Your task to perform on an android device: open app "Adobe Express: Graphic Design" (install if not already installed) Image 0: 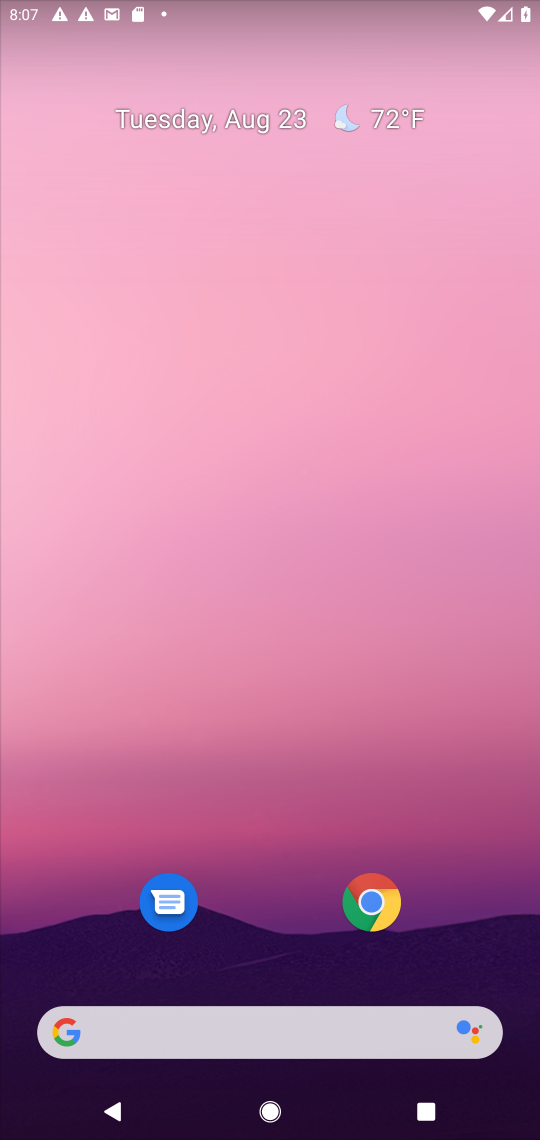
Step 0: click (251, 341)
Your task to perform on an android device: open app "Adobe Express: Graphic Design" (install if not already installed) Image 1: 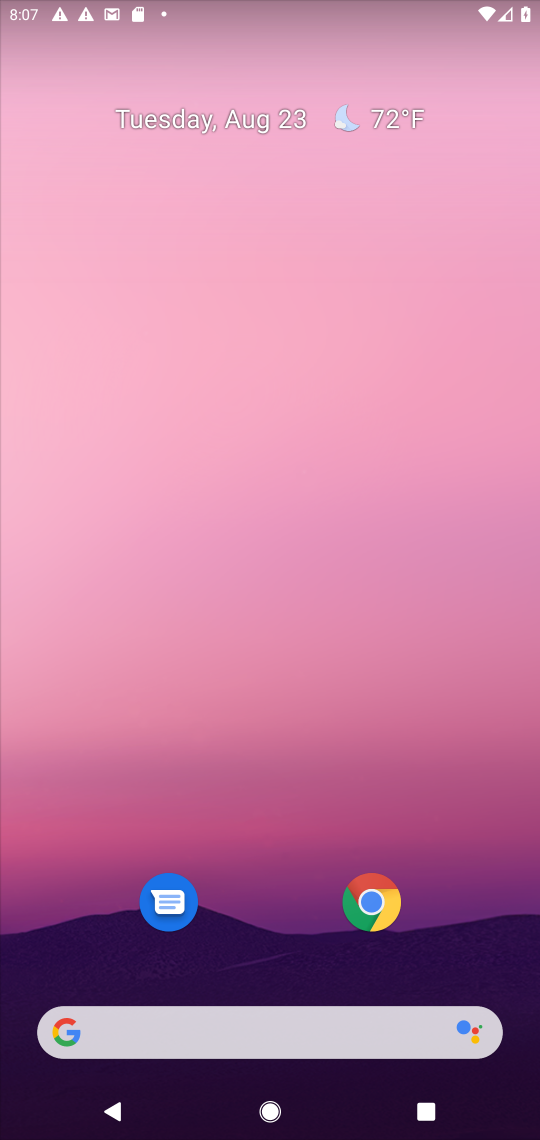
Step 1: drag from (267, 1035) to (255, 224)
Your task to perform on an android device: open app "Adobe Express: Graphic Design" (install if not already installed) Image 2: 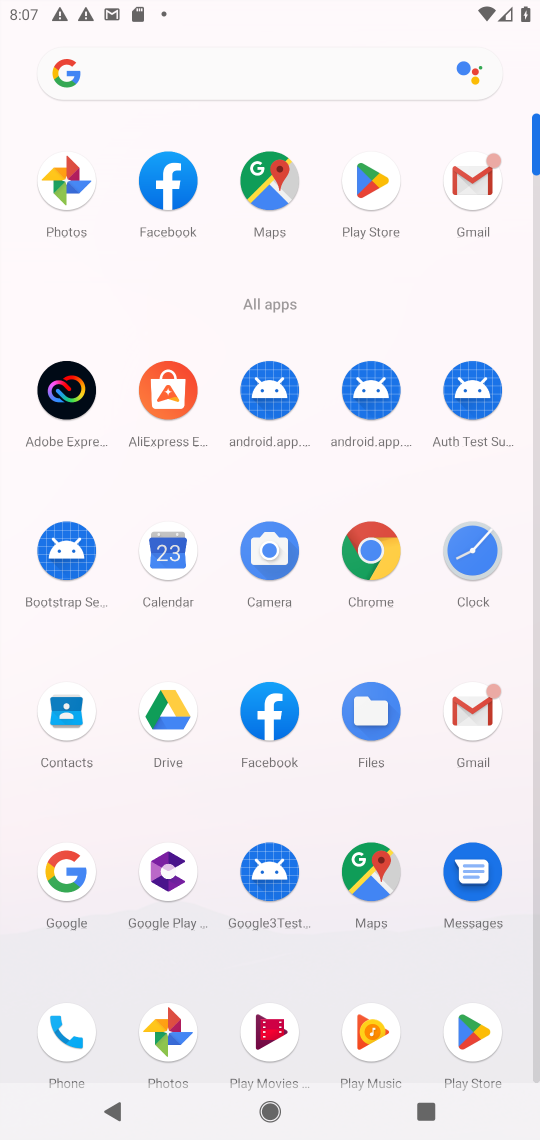
Step 2: click (345, 172)
Your task to perform on an android device: open app "Adobe Express: Graphic Design" (install if not already installed) Image 3: 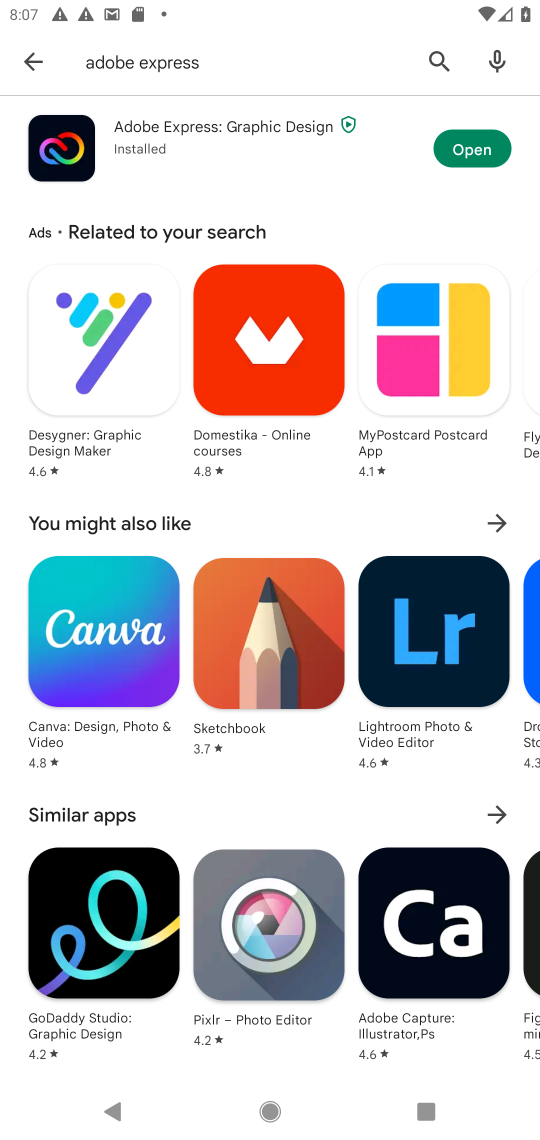
Step 3: click (436, 62)
Your task to perform on an android device: open app "Adobe Express: Graphic Design" (install if not already installed) Image 4: 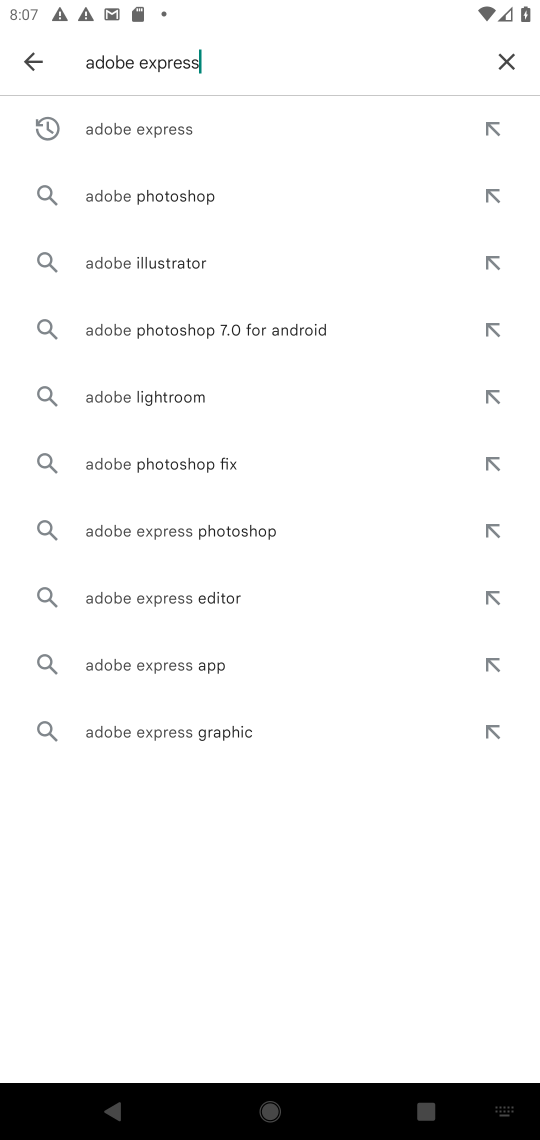
Step 4: click (506, 59)
Your task to perform on an android device: open app "Adobe Express: Graphic Design" (install if not already installed) Image 5: 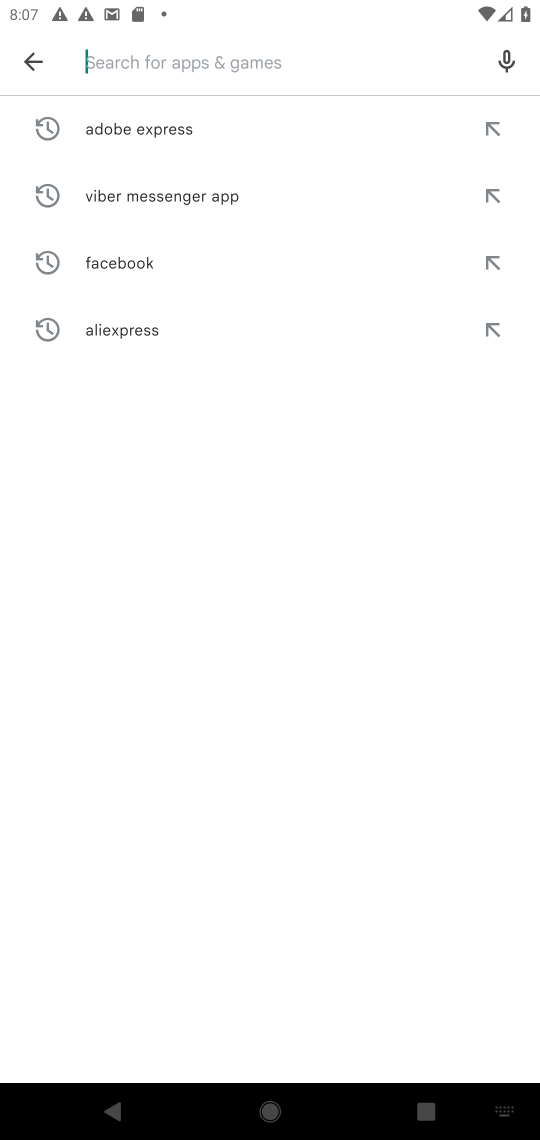
Step 5: type "adobe express"
Your task to perform on an android device: open app "Adobe Express: Graphic Design" (install if not already installed) Image 6: 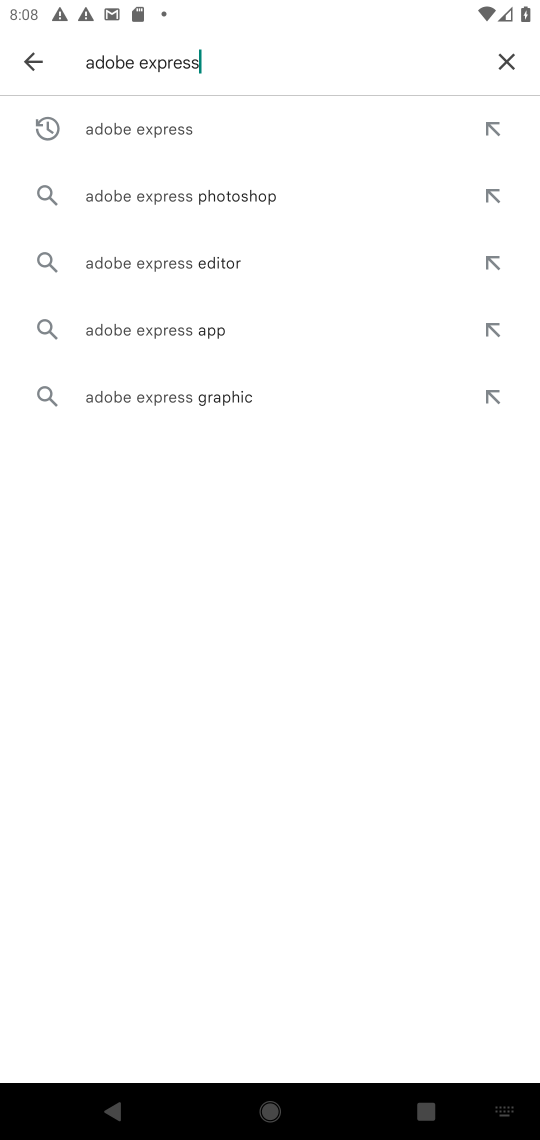
Step 6: click (153, 143)
Your task to perform on an android device: open app "Adobe Express: Graphic Design" (install if not already installed) Image 7: 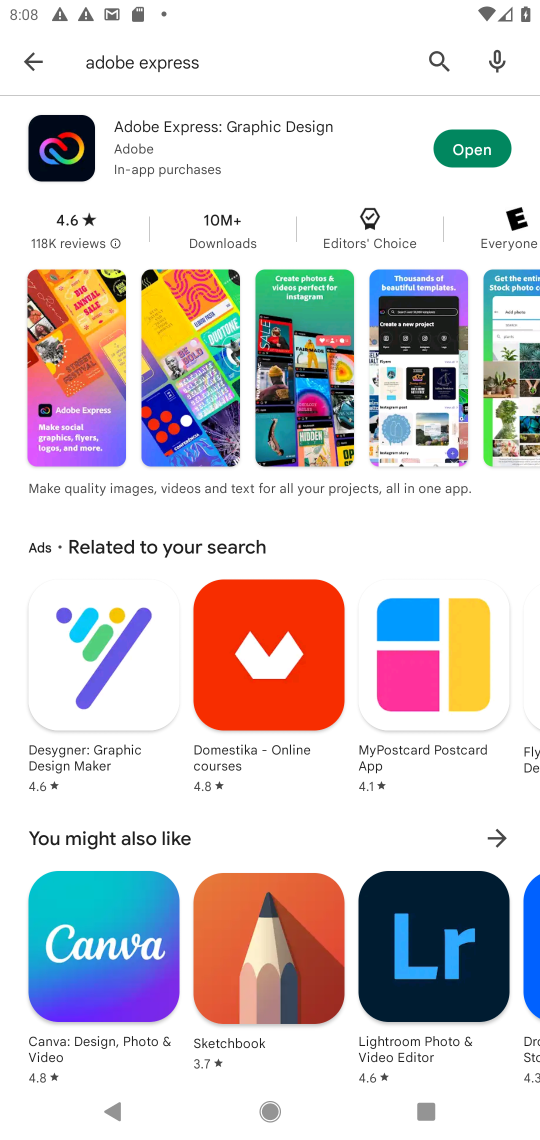
Step 7: click (475, 144)
Your task to perform on an android device: open app "Adobe Express: Graphic Design" (install if not already installed) Image 8: 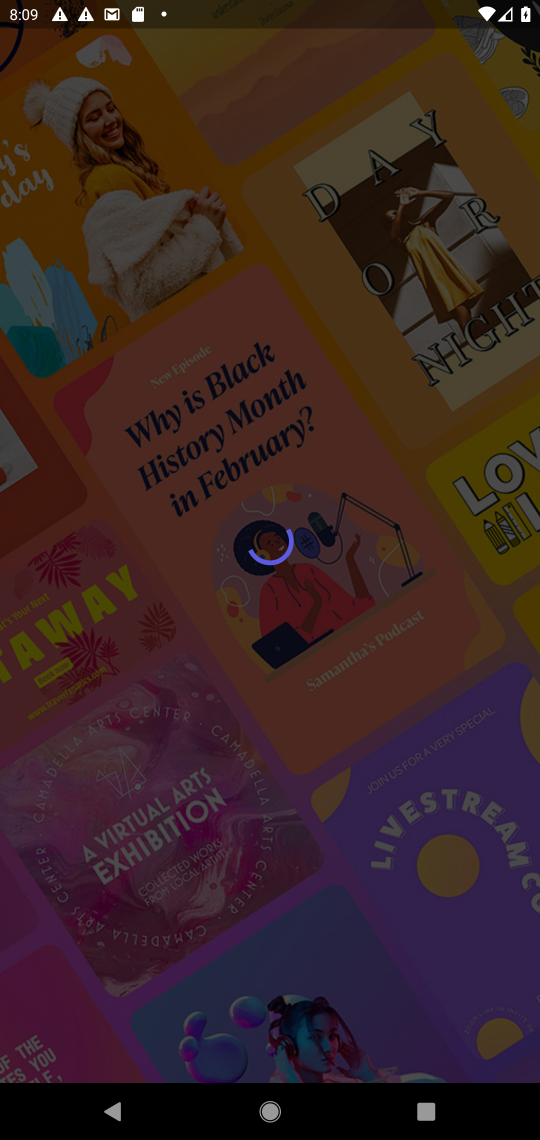
Step 8: task complete